Your task to perform on an android device: Search for seafood restaurants on Google Maps Image 0: 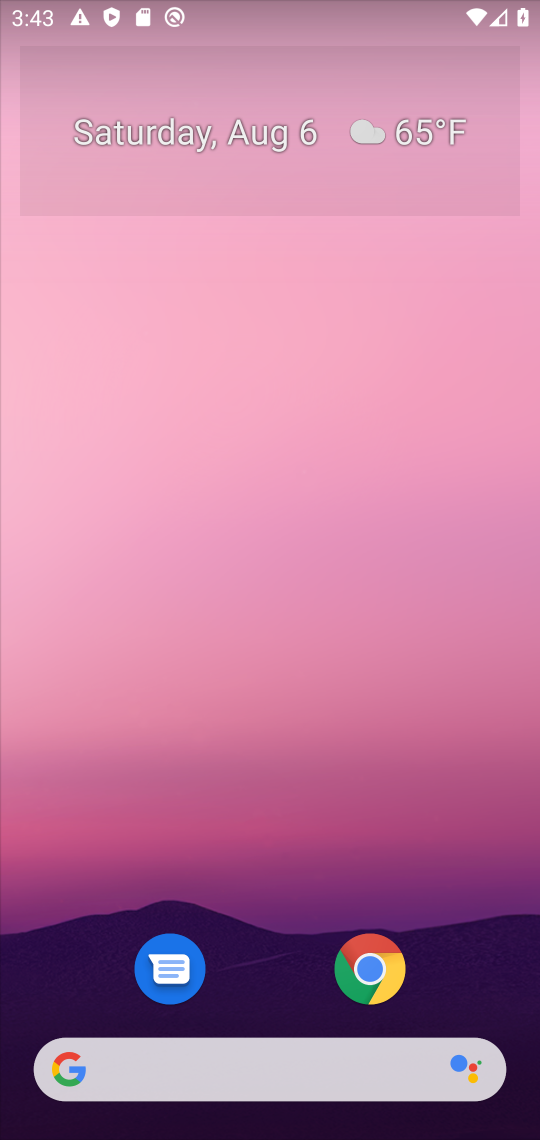
Step 0: press home button
Your task to perform on an android device: Search for seafood restaurants on Google Maps Image 1: 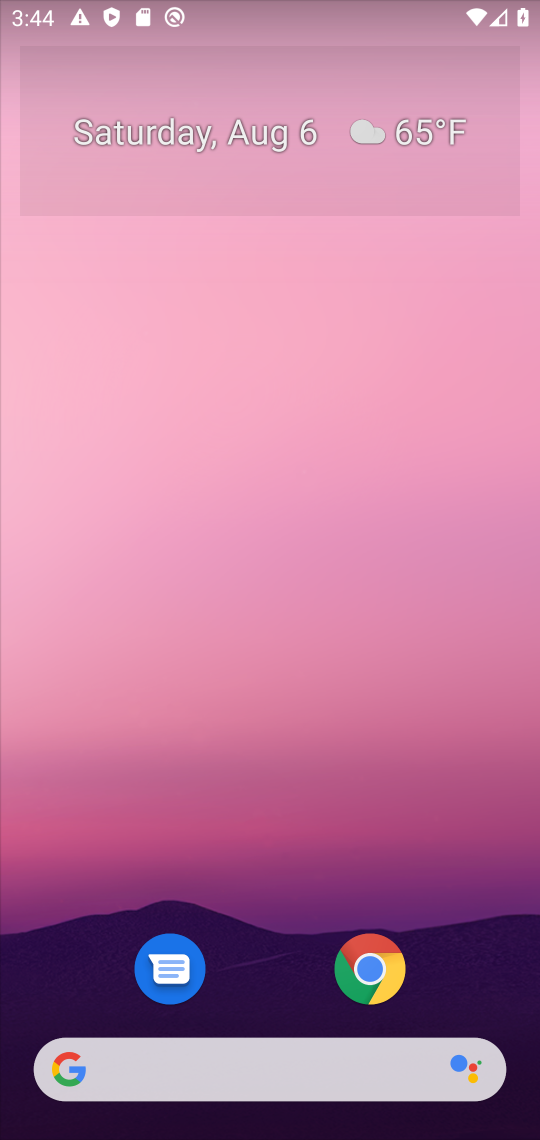
Step 1: drag from (267, 970) to (148, 168)
Your task to perform on an android device: Search for seafood restaurants on Google Maps Image 2: 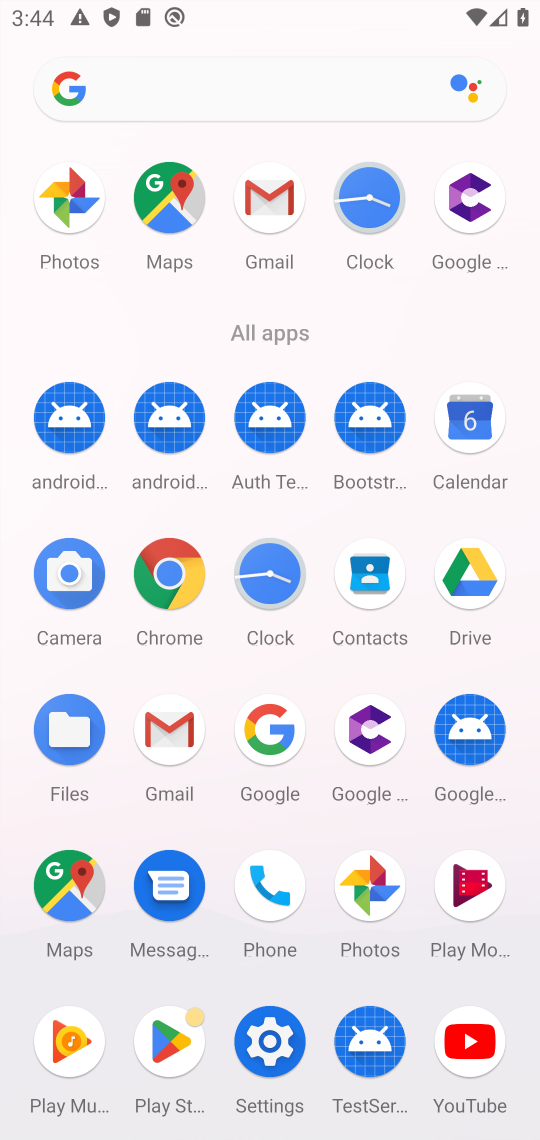
Step 2: drag from (280, 659) to (281, 556)
Your task to perform on an android device: Search for seafood restaurants on Google Maps Image 3: 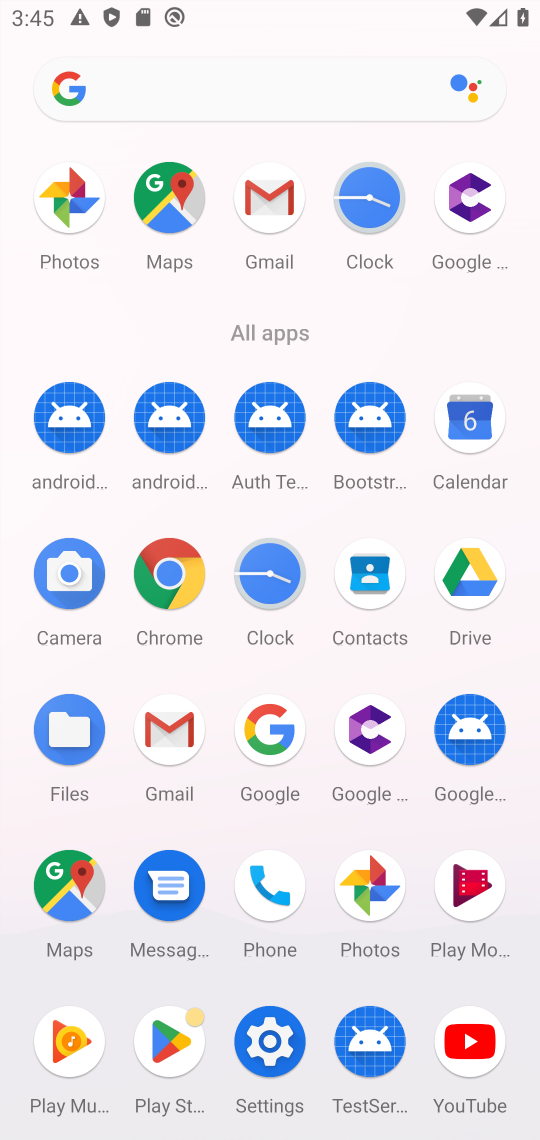
Step 3: click (81, 883)
Your task to perform on an android device: Search for seafood restaurants on Google Maps Image 4: 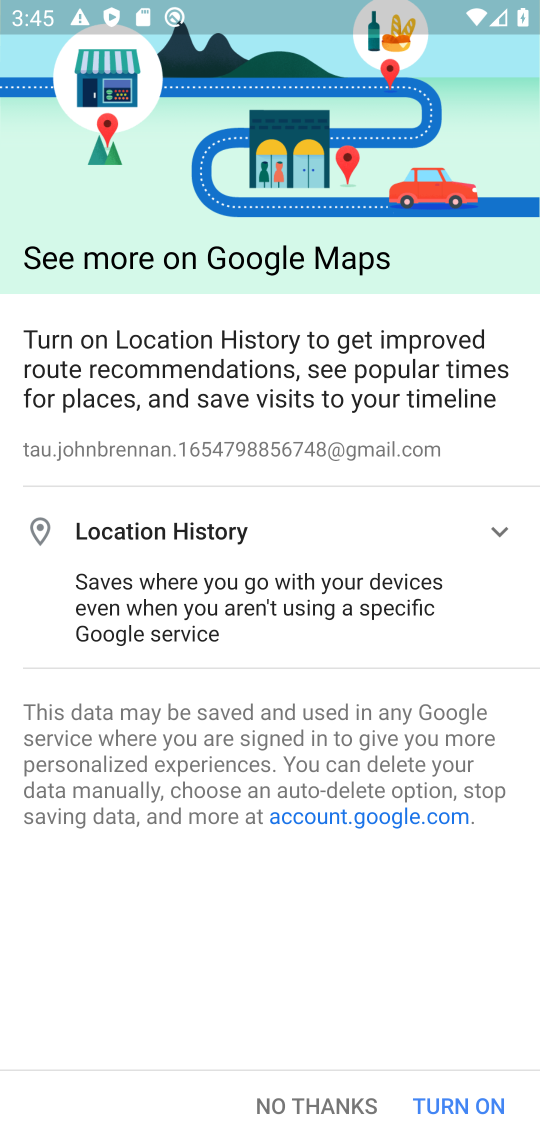
Step 4: press back button
Your task to perform on an android device: Search for seafood restaurants on Google Maps Image 5: 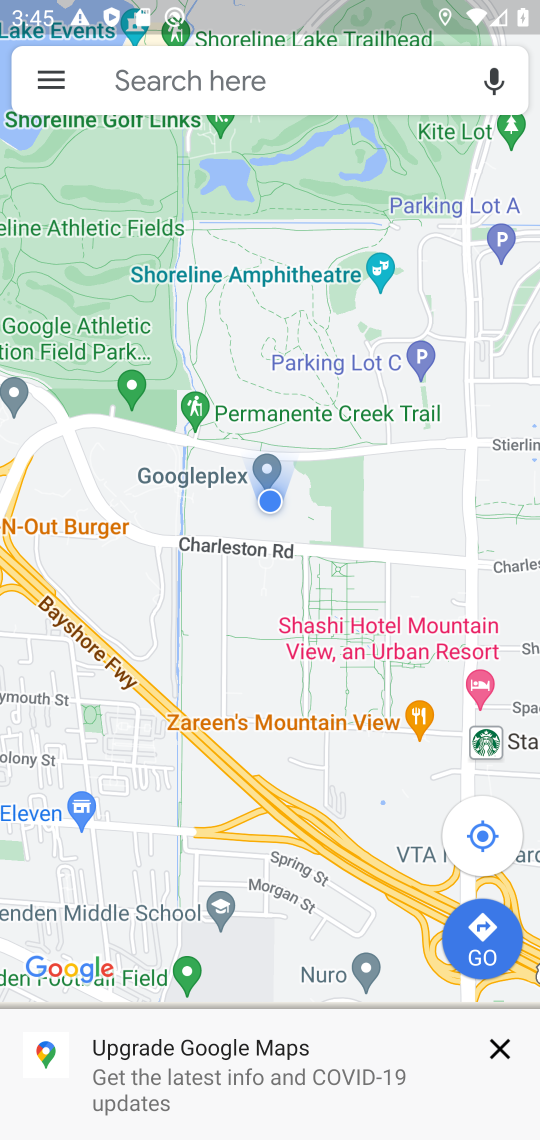
Step 5: type "seafood restaurants"
Your task to perform on an android device: Search for seafood restaurants on Google Maps Image 6: 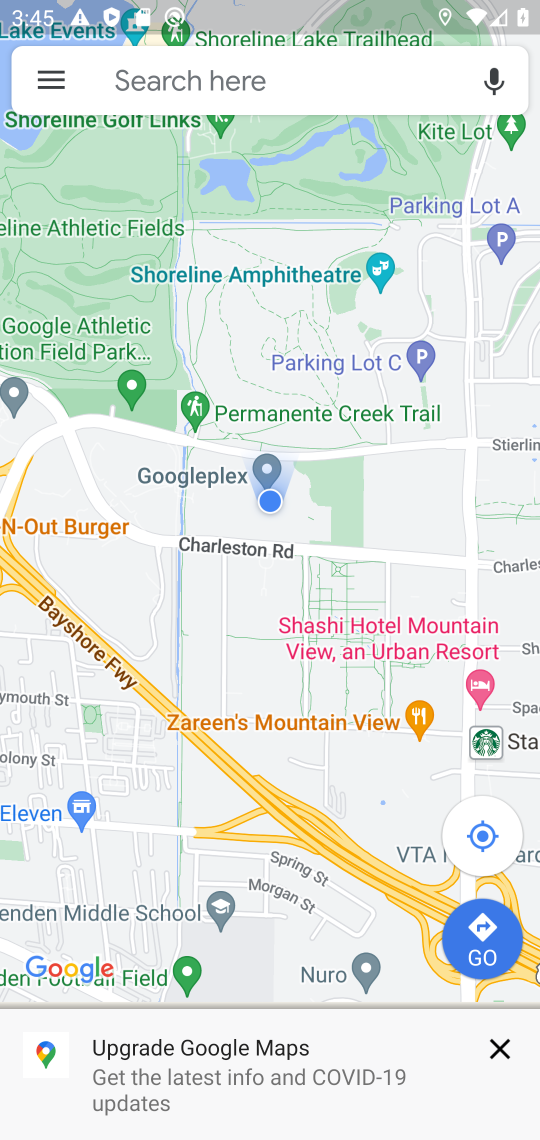
Step 6: click (199, 82)
Your task to perform on an android device: Search for seafood restaurants on Google Maps Image 7: 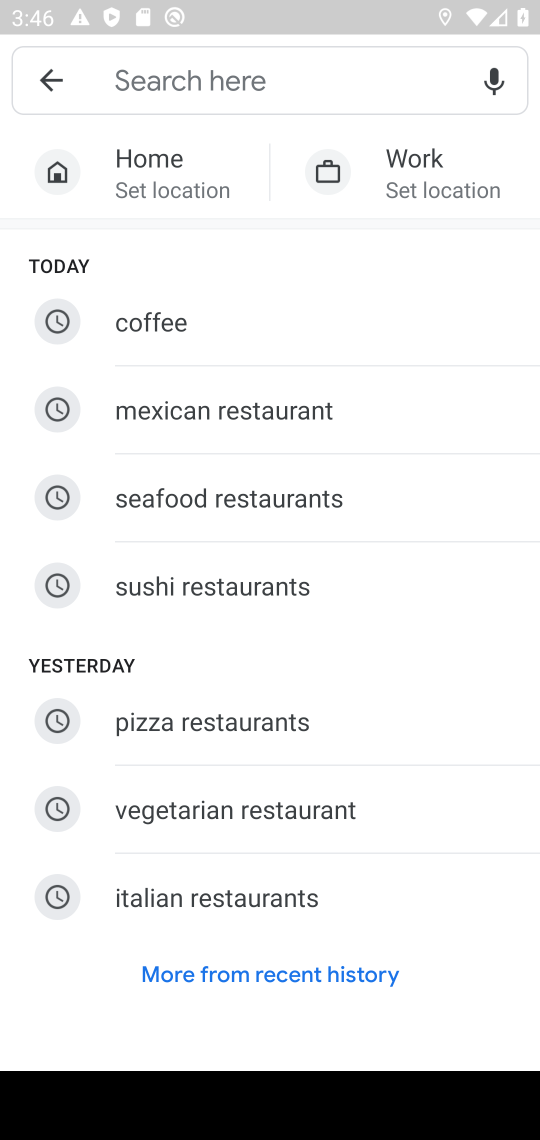
Step 7: click (259, 75)
Your task to perform on an android device: Search for seafood restaurants on Google Maps Image 8: 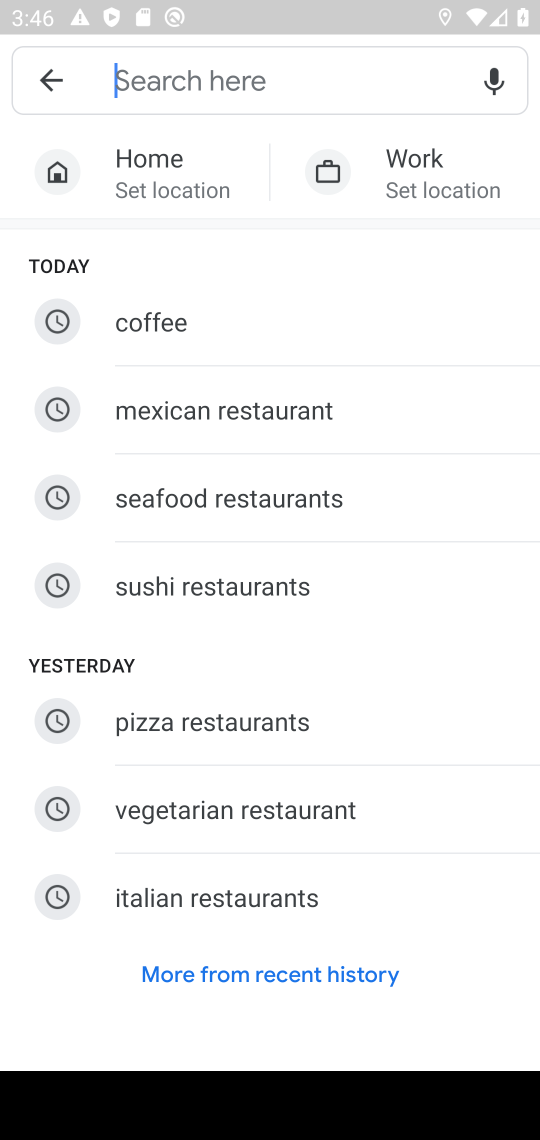
Step 8: type "seafood restaurants"
Your task to perform on an android device: Search for seafood restaurants on Google Maps Image 9: 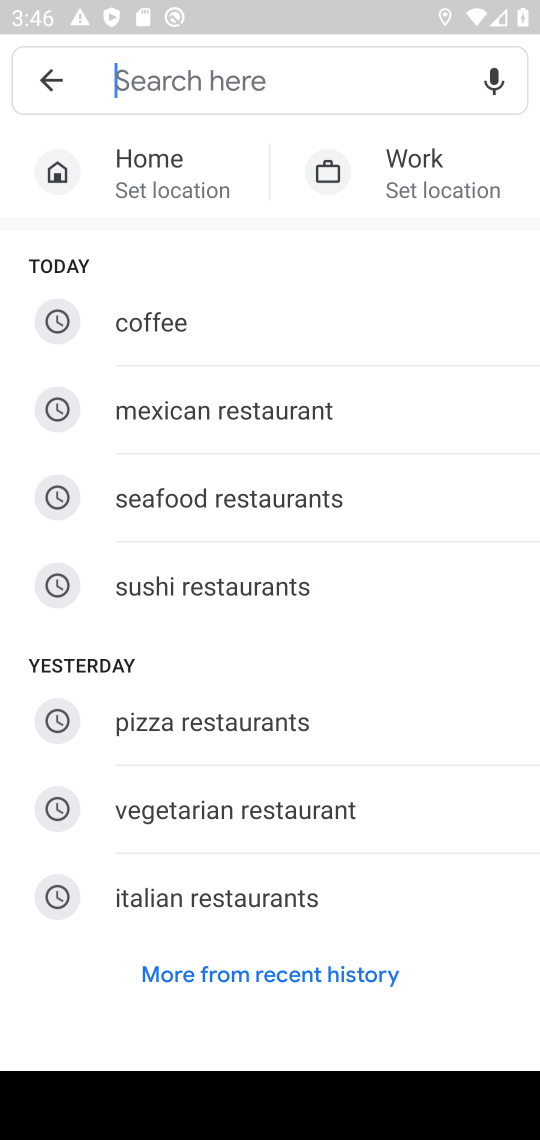
Step 9: click (236, 80)
Your task to perform on an android device: Search for seafood restaurants on Google Maps Image 10: 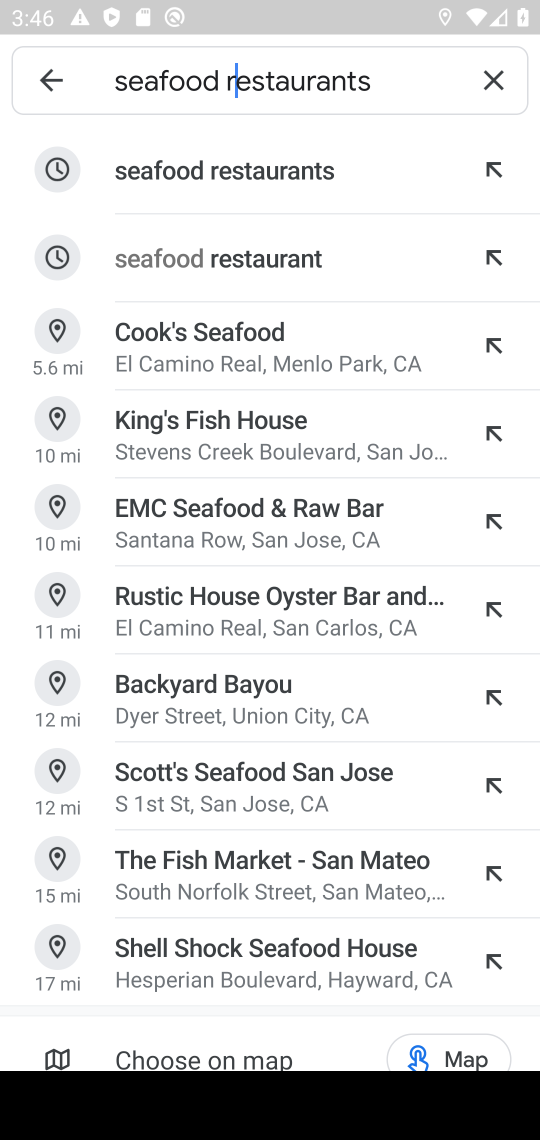
Step 10: press enter
Your task to perform on an android device: Search for seafood restaurants on Google Maps Image 11: 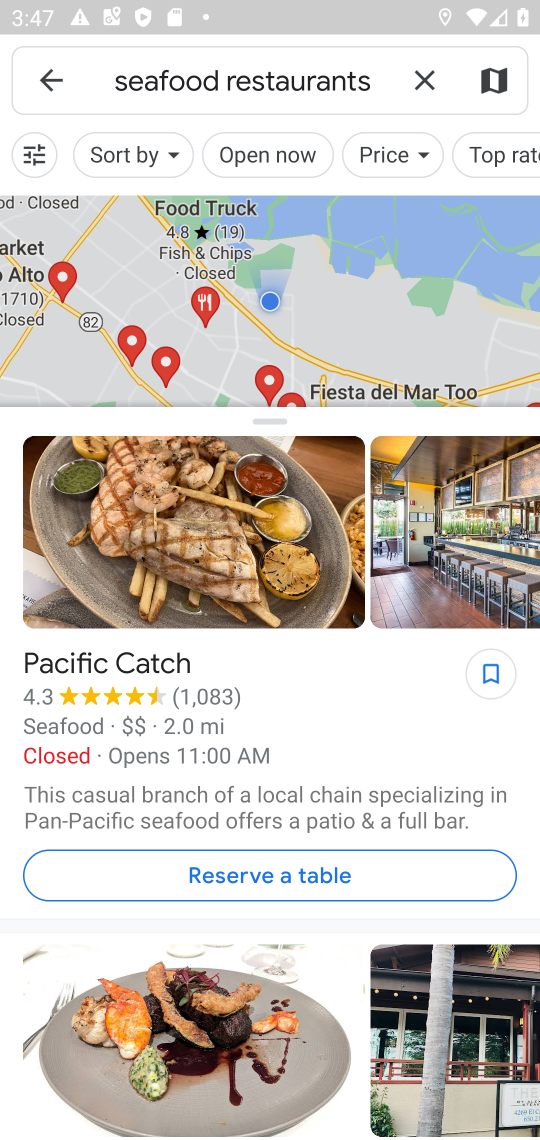
Step 11: task complete